Your task to perform on an android device: delete the emails in spam in the gmail app Image 0: 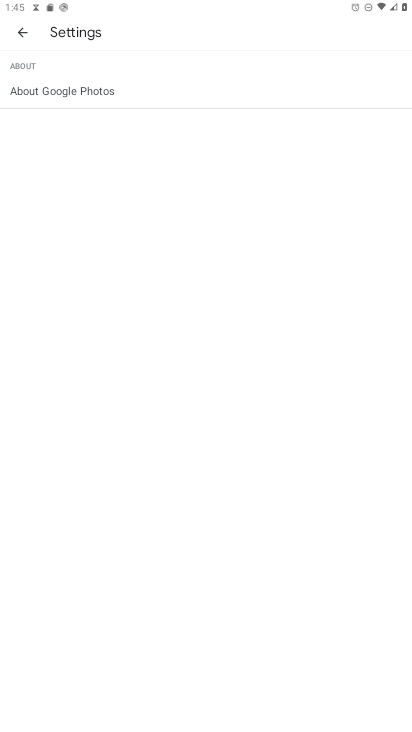
Step 0: press home button
Your task to perform on an android device: delete the emails in spam in the gmail app Image 1: 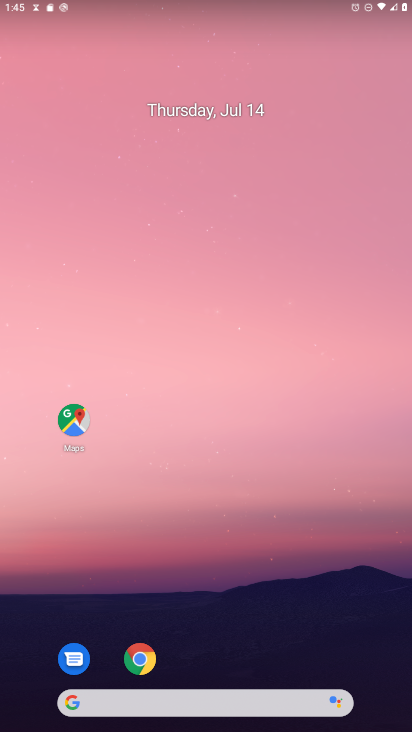
Step 1: drag from (39, 693) to (298, 52)
Your task to perform on an android device: delete the emails in spam in the gmail app Image 2: 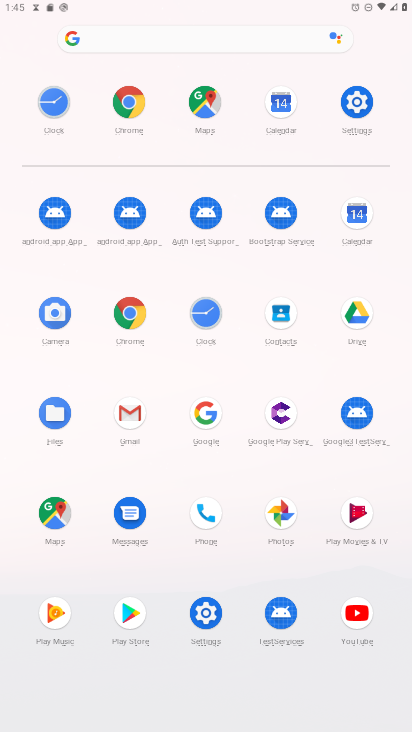
Step 2: click (126, 413)
Your task to perform on an android device: delete the emails in spam in the gmail app Image 3: 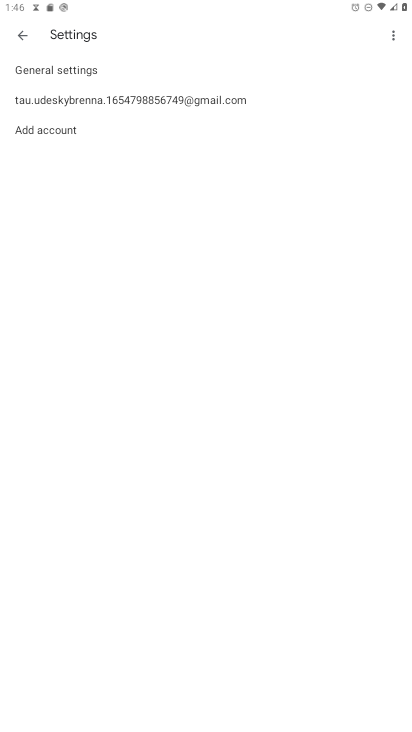
Step 3: click (23, 30)
Your task to perform on an android device: delete the emails in spam in the gmail app Image 4: 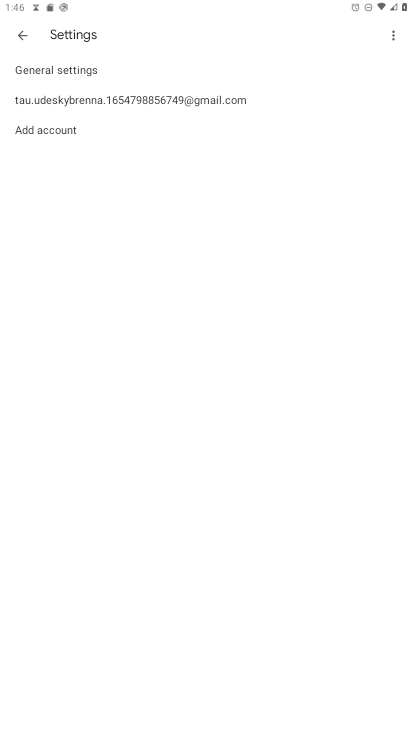
Step 4: click (23, 34)
Your task to perform on an android device: delete the emails in spam in the gmail app Image 5: 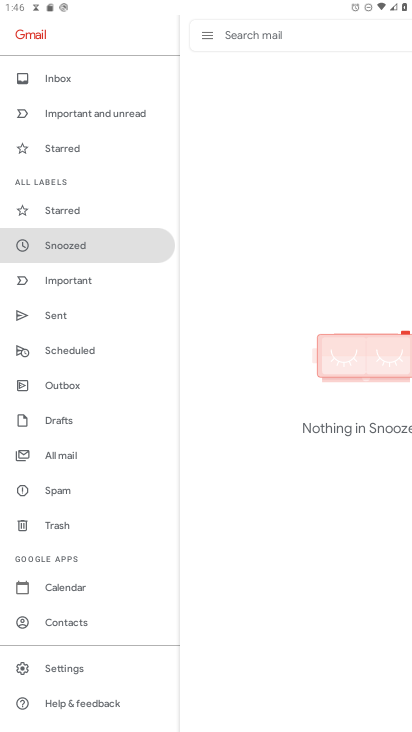
Step 5: click (66, 483)
Your task to perform on an android device: delete the emails in spam in the gmail app Image 6: 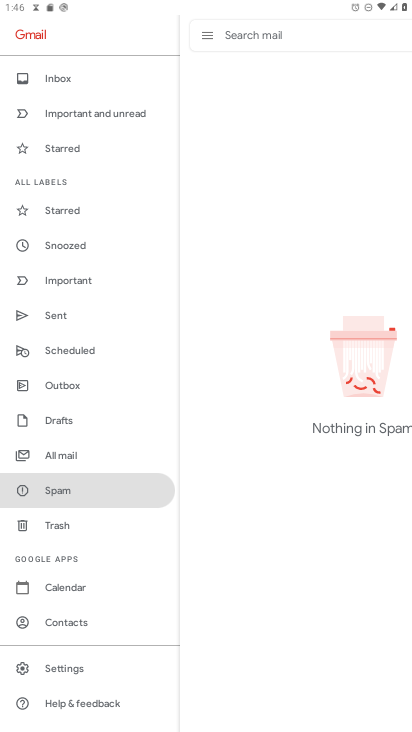
Step 6: task complete